Your task to perform on an android device: open app "ZOOM Cloud Meetings" (install if not already installed) Image 0: 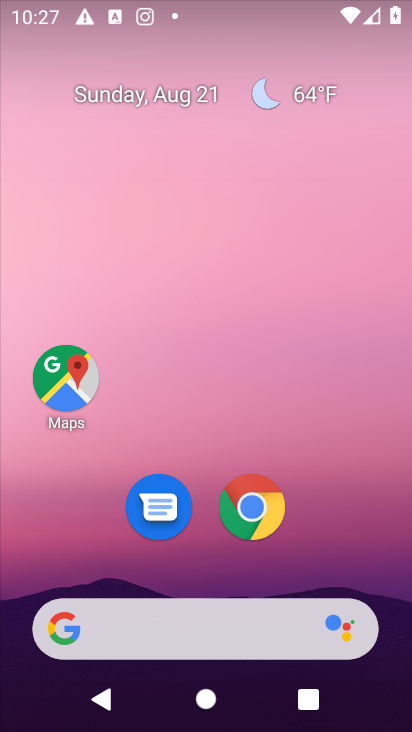
Step 0: drag from (186, 535) to (186, 159)
Your task to perform on an android device: open app "ZOOM Cloud Meetings" (install if not already installed) Image 1: 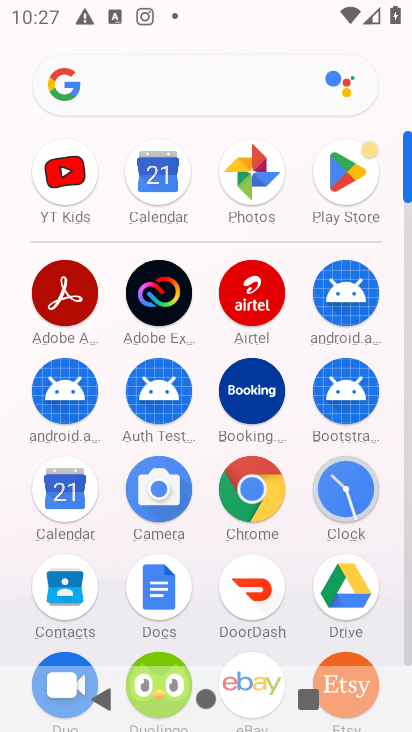
Step 1: click (342, 170)
Your task to perform on an android device: open app "ZOOM Cloud Meetings" (install if not already installed) Image 2: 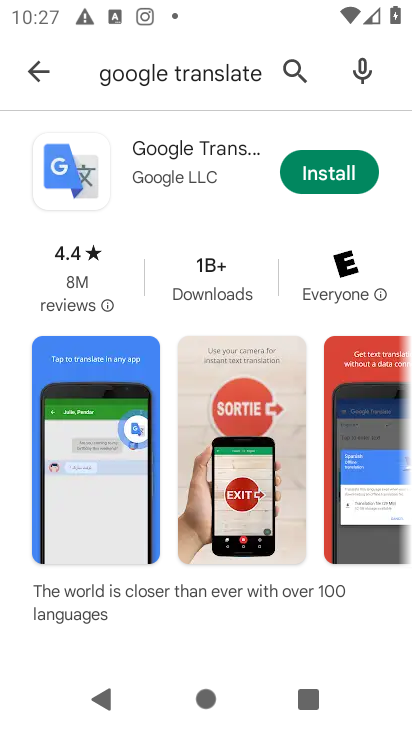
Step 2: click (33, 67)
Your task to perform on an android device: open app "ZOOM Cloud Meetings" (install if not already installed) Image 3: 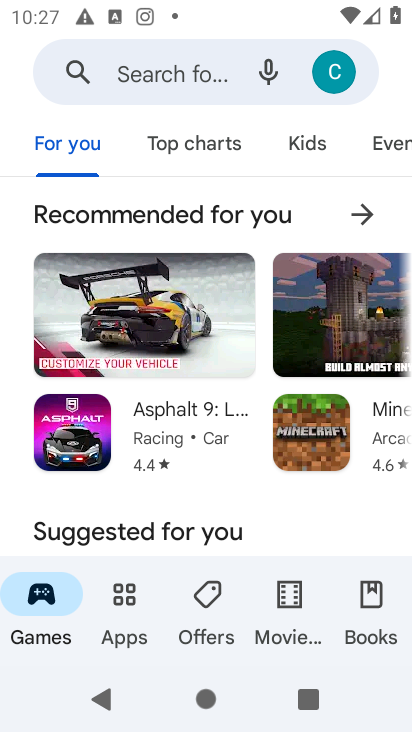
Step 3: click (176, 67)
Your task to perform on an android device: open app "ZOOM Cloud Meetings" (install if not already installed) Image 4: 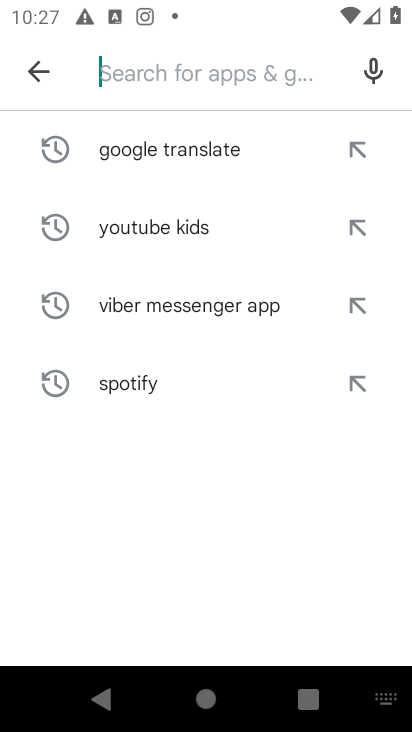
Step 4: type "ZOOM Cloud Meetings"
Your task to perform on an android device: open app "ZOOM Cloud Meetings" (install if not already installed) Image 5: 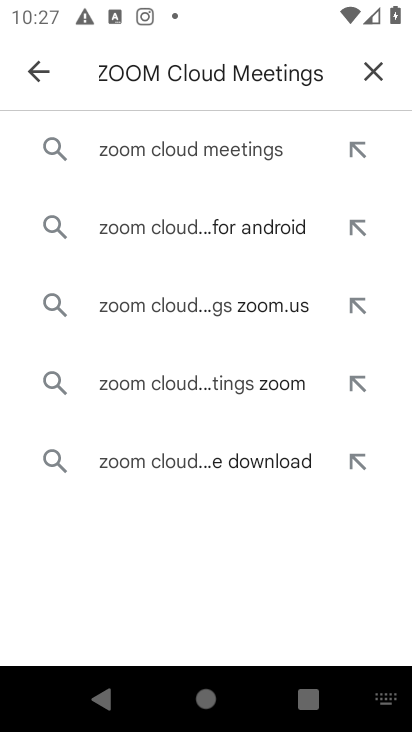
Step 5: click (268, 156)
Your task to perform on an android device: open app "ZOOM Cloud Meetings" (install if not already installed) Image 6: 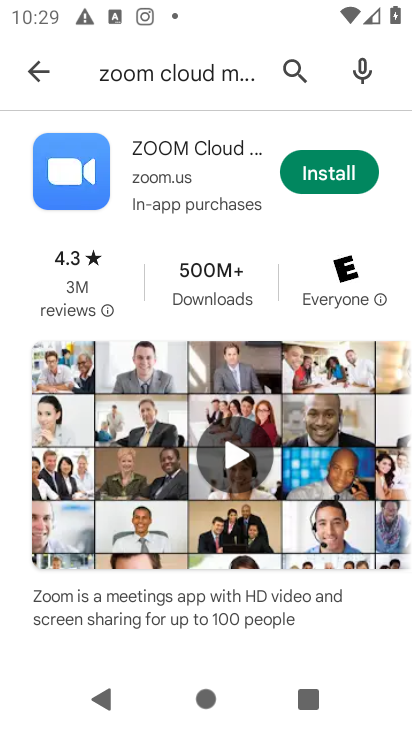
Step 6: click (320, 170)
Your task to perform on an android device: open app "ZOOM Cloud Meetings" (install if not already installed) Image 7: 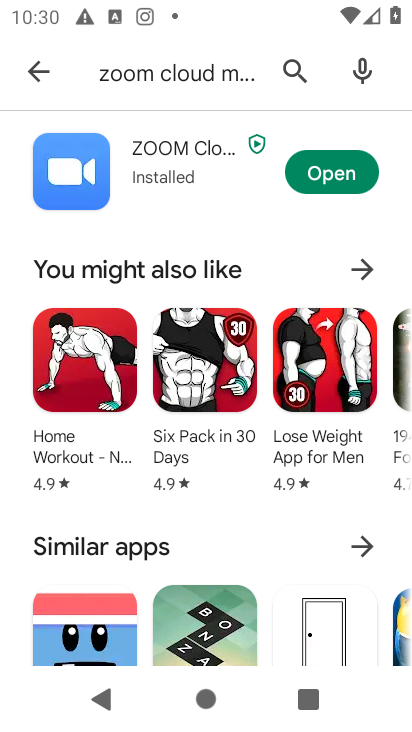
Step 7: click (320, 170)
Your task to perform on an android device: open app "ZOOM Cloud Meetings" (install if not already installed) Image 8: 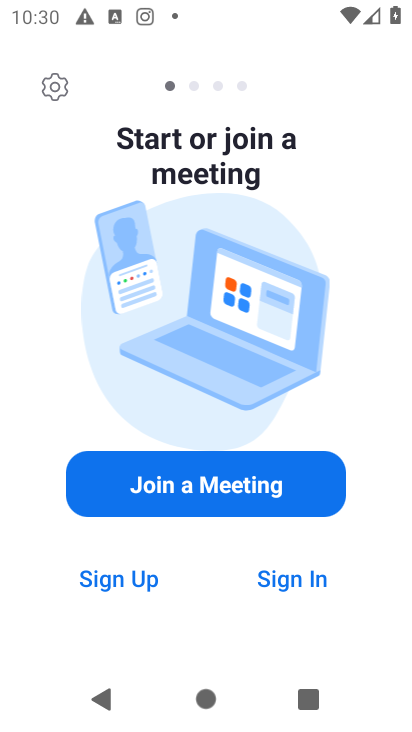
Step 8: task complete